Your task to perform on an android device: Search for pizza restaurants on Maps Image 0: 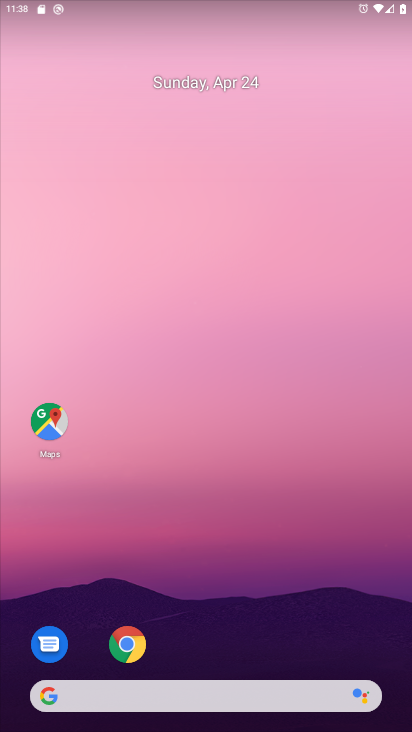
Step 0: click (53, 420)
Your task to perform on an android device: Search for pizza restaurants on Maps Image 1: 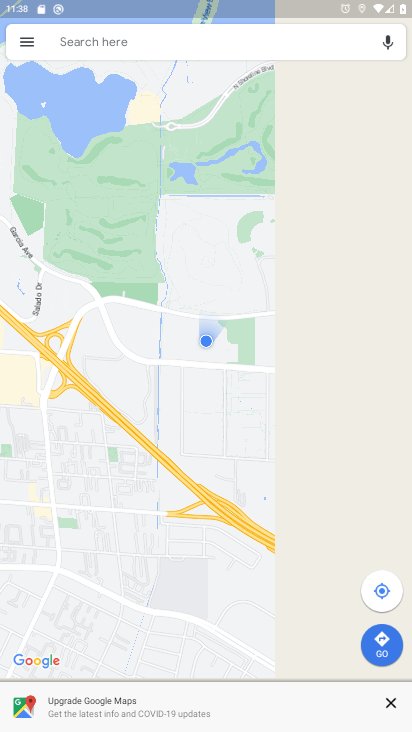
Step 1: click (199, 37)
Your task to perform on an android device: Search for pizza restaurants on Maps Image 2: 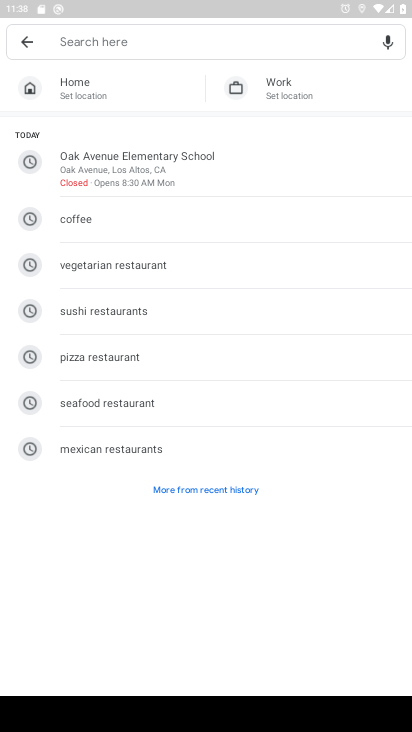
Step 2: type "Pizza restaurants"
Your task to perform on an android device: Search for pizza restaurants on Maps Image 3: 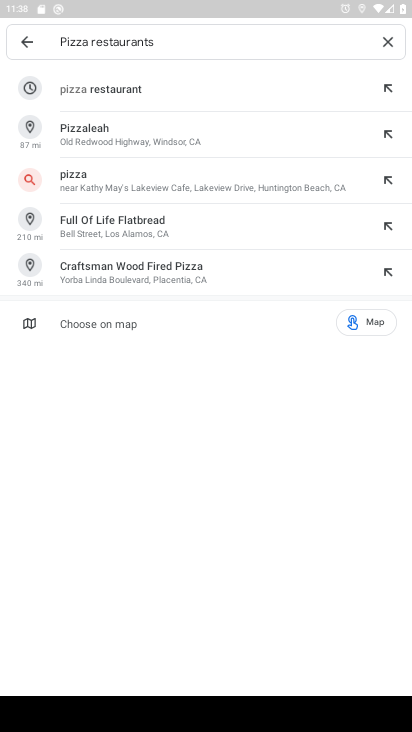
Step 3: click (154, 89)
Your task to perform on an android device: Search for pizza restaurants on Maps Image 4: 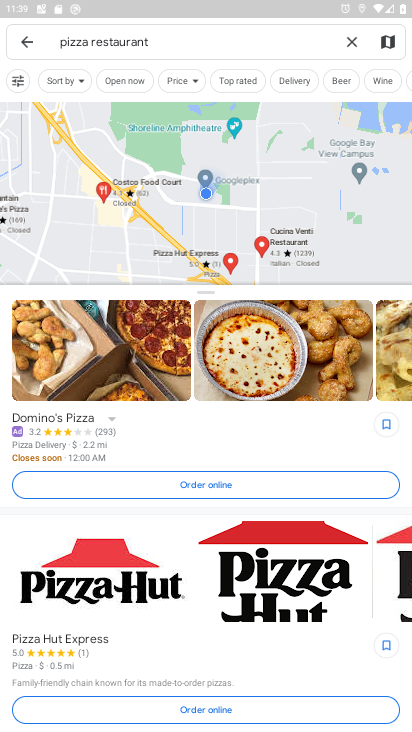
Step 4: task complete